Your task to perform on an android device: Open Yahoo.com Image 0: 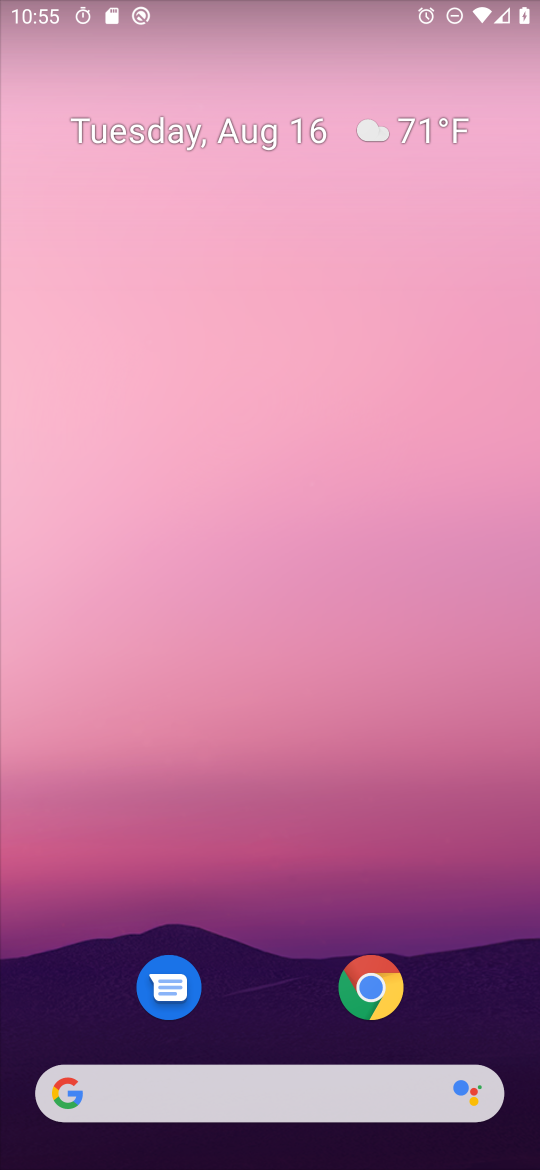
Step 0: click (156, 1090)
Your task to perform on an android device: Open Yahoo.com Image 1: 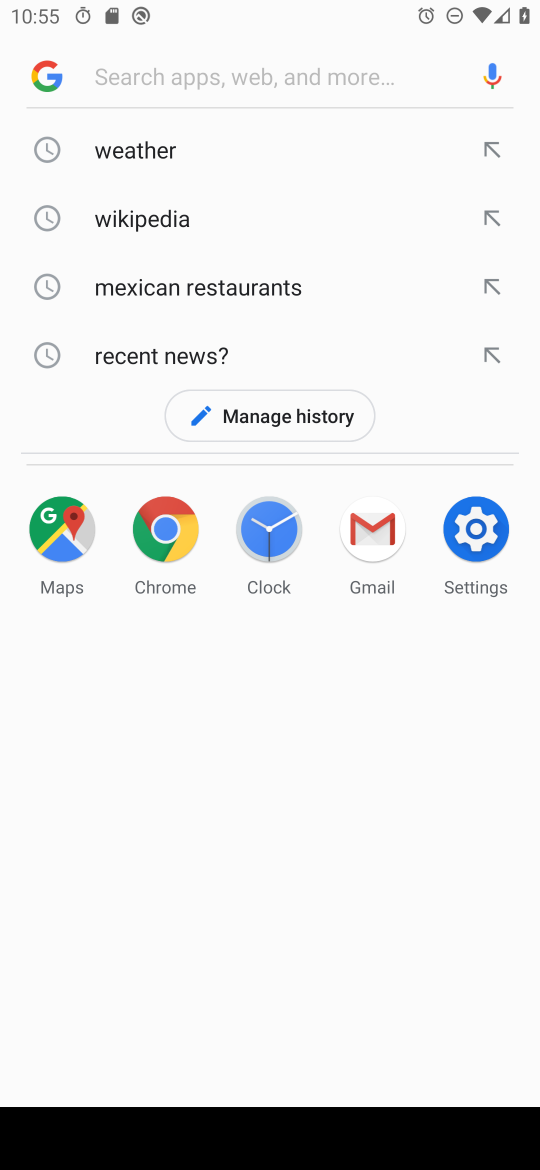
Step 1: type "Yahoo.com"
Your task to perform on an android device: Open Yahoo.com Image 2: 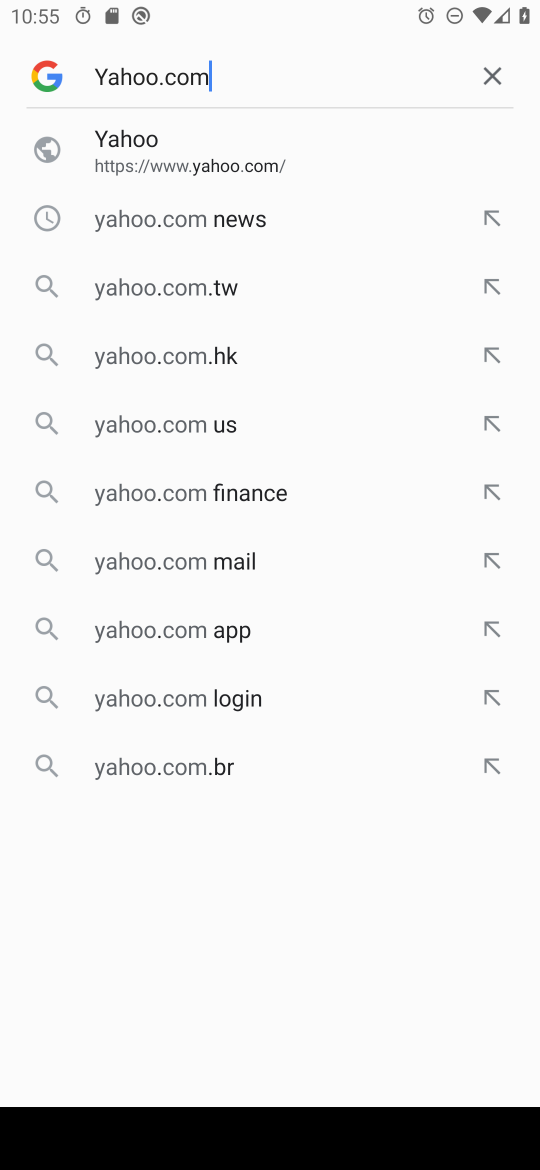
Step 2: type ""
Your task to perform on an android device: Open Yahoo.com Image 3: 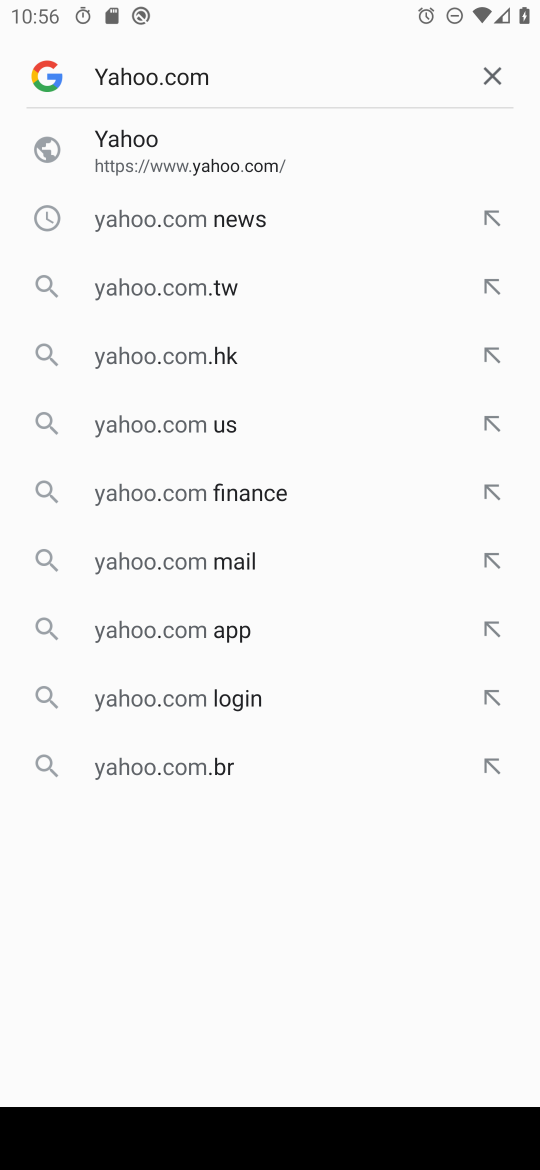
Step 3: task complete